Your task to perform on an android device: turn off smart reply in the gmail app Image 0: 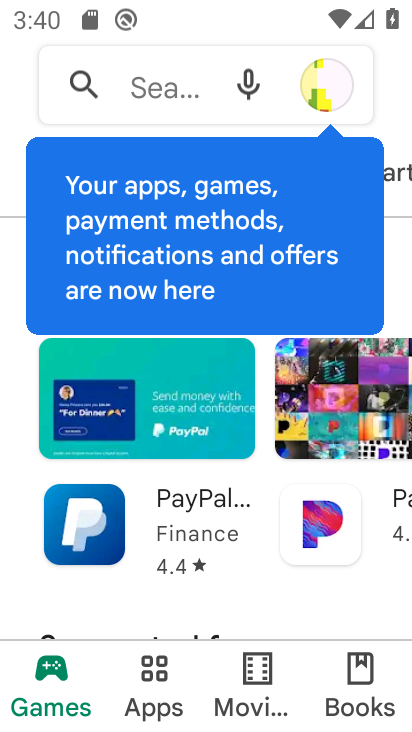
Step 0: press home button
Your task to perform on an android device: turn off smart reply in the gmail app Image 1: 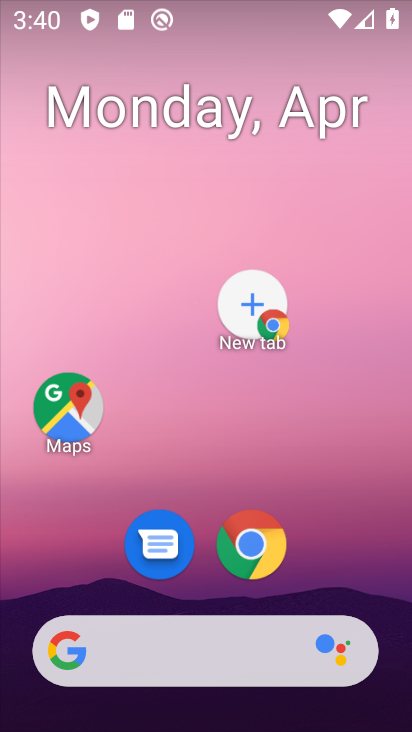
Step 1: drag from (315, 544) to (325, 0)
Your task to perform on an android device: turn off smart reply in the gmail app Image 2: 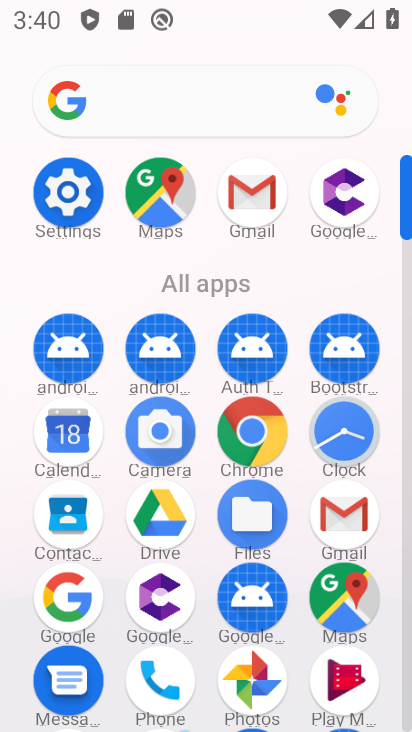
Step 2: click (356, 529)
Your task to perform on an android device: turn off smart reply in the gmail app Image 3: 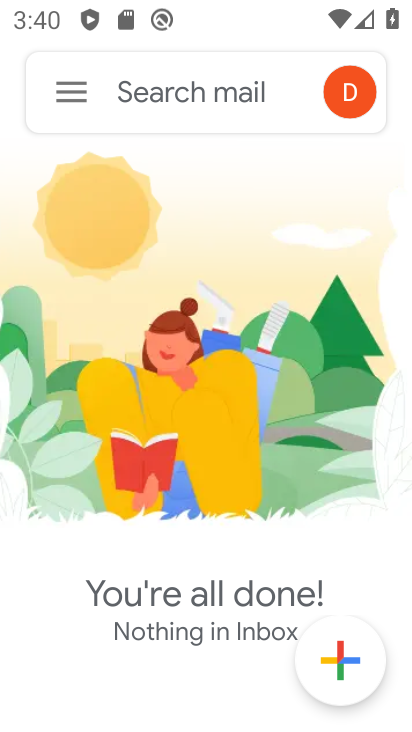
Step 3: click (89, 97)
Your task to perform on an android device: turn off smart reply in the gmail app Image 4: 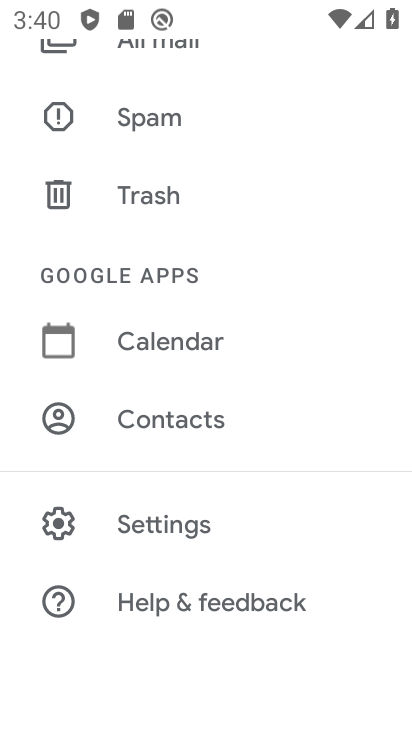
Step 4: click (209, 529)
Your task to perform on an android device: turn off smart reply in the gmail app Image 5: 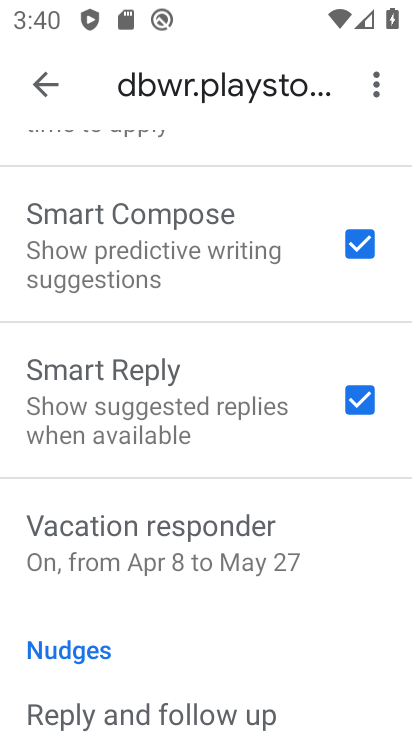
Step 5: click (351, 396)
Your task to perform on an android device: turn off smart reply in the gmail app Image 6: 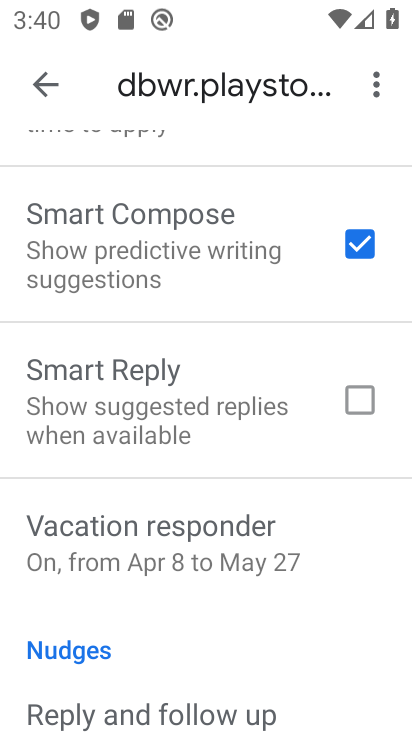
Step 6: task complete